Your task to perform on an android device: move an email to a new category in the gmail app Image 0: 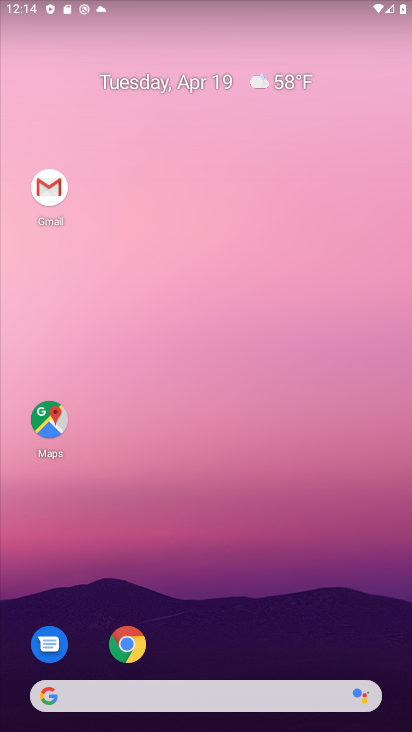
Step 0: drag from (245, 661) to (222, 243)
Your task to perform on an android device: move an email to a new category in the gmail app Image 1: 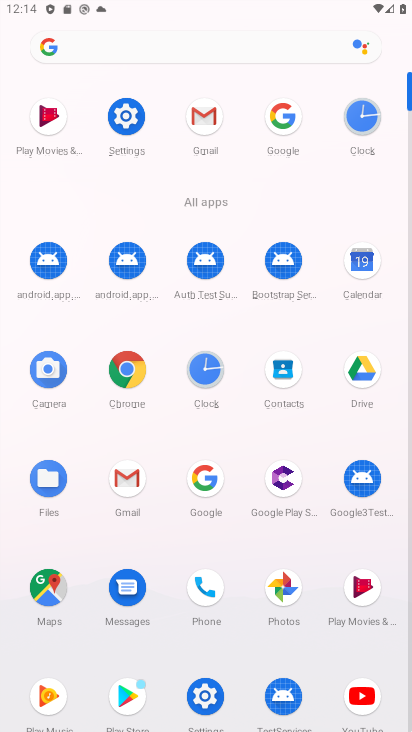
Step 1: drag from (84, 556) to (171, 169)
Your task to perform on an android device: move an email to a new category in the gmail app Image 2: 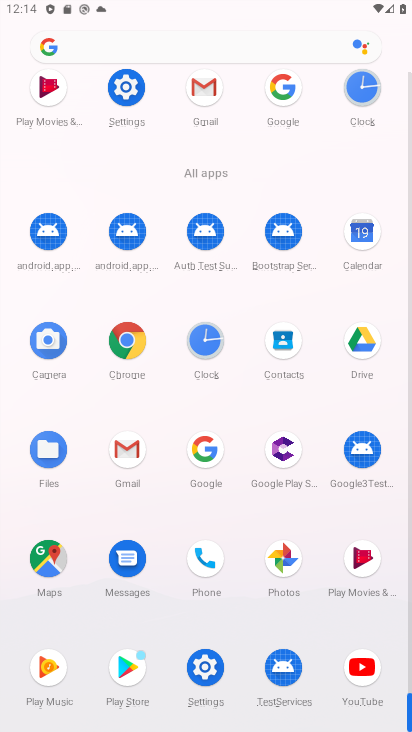
Step 2: click (281, 346)
Your task to perform on an android device: move an email to a new category in the gmail app Image 3: 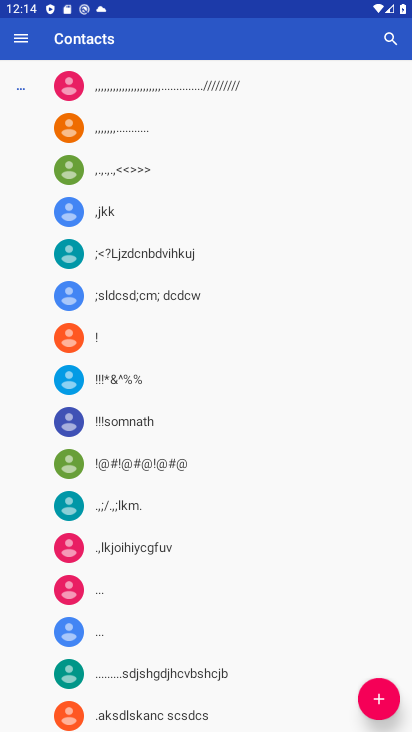
Step 3: task complete